Your task to perform on an android device: turn on airplane mode Image 0: 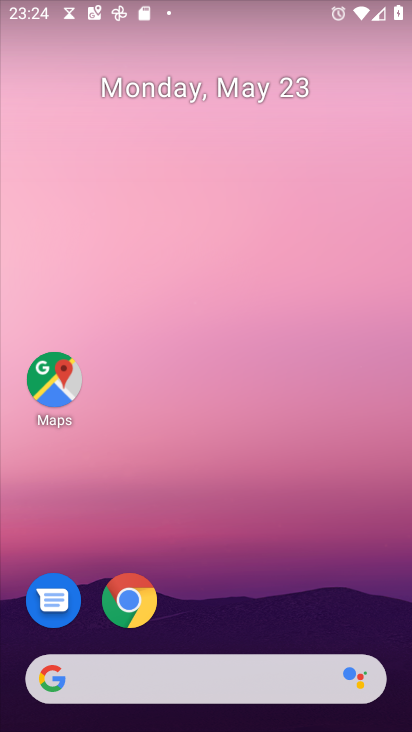
Step 0: drag from (180, 720) to (154, 173)
Your task to perform on an android device: turn on airplane mode Image 1: 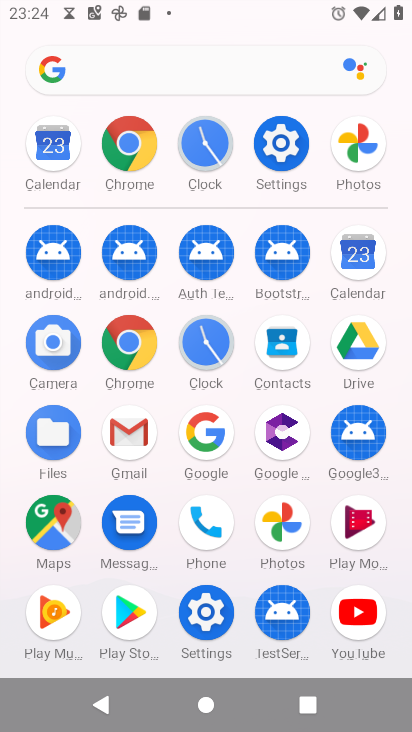
Step 1: click (284, 146)
Your task to perform on an android device: turn on airplane mode Image 2: 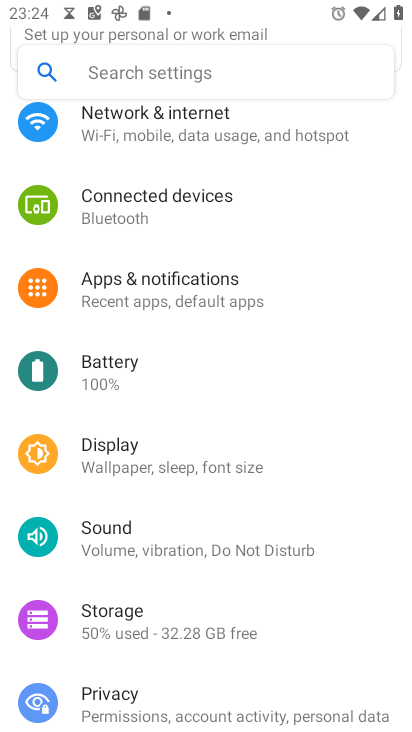
Step 2: drag from (256, 157) to (283, 606)
Your task to perform on an android device: turn on airplane mode Image 3: 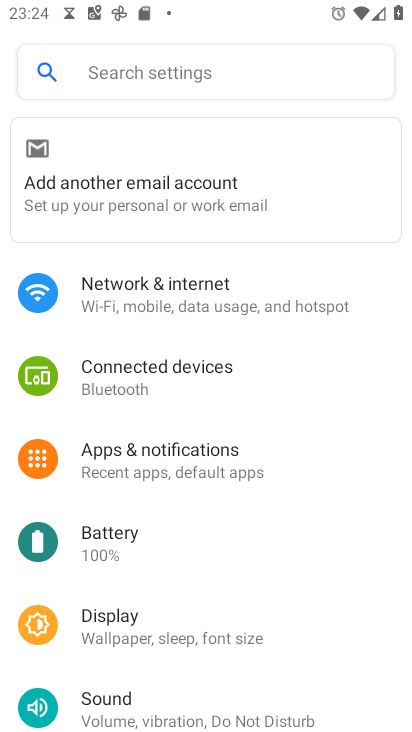
Step 3: click (155, 292)
Your task to perform on an android device: turn on airplane mode Image 4: 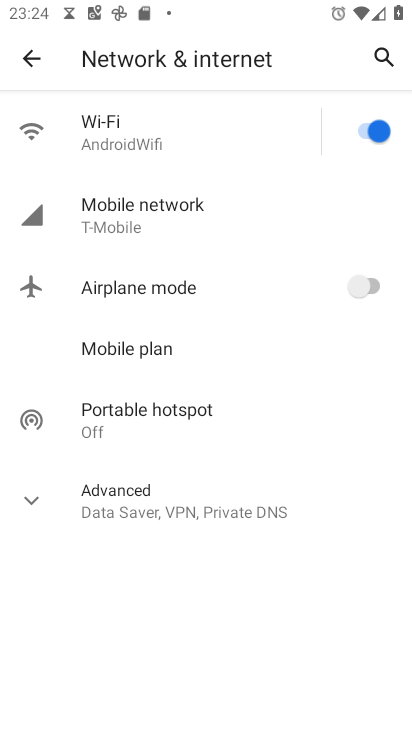
Step 4: click (377, 283)
Your task to perform on an android device: turn on airplane mode Image 5: 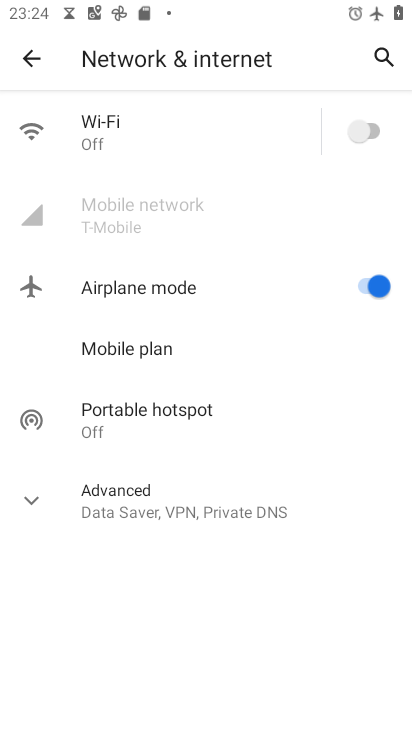
Step 5: task complete